Your task to perform on an android device: Go to CNN.com Image 0: 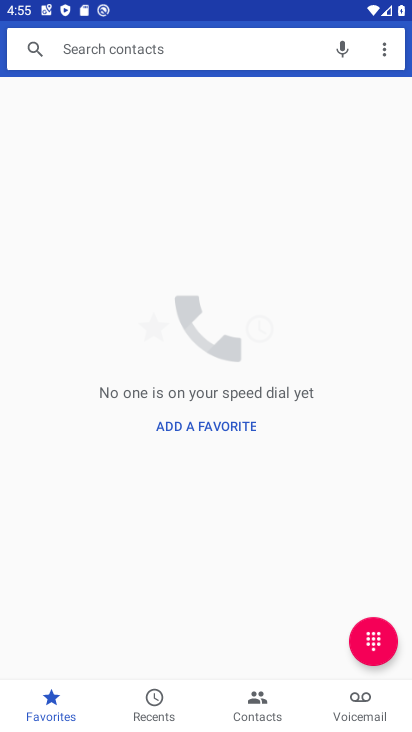
Step 0: press home button
Your task to perform on an android device: Go to CNN.com Image 1: 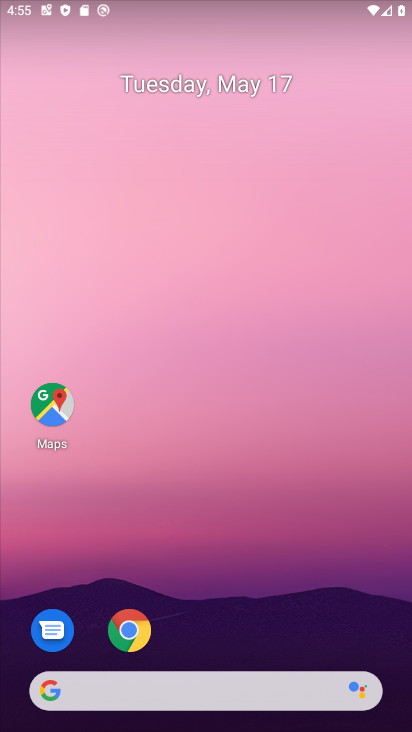
Step 1: click (133, 634)
Your task to perform on an android device: Go to CNN.com Image 2: 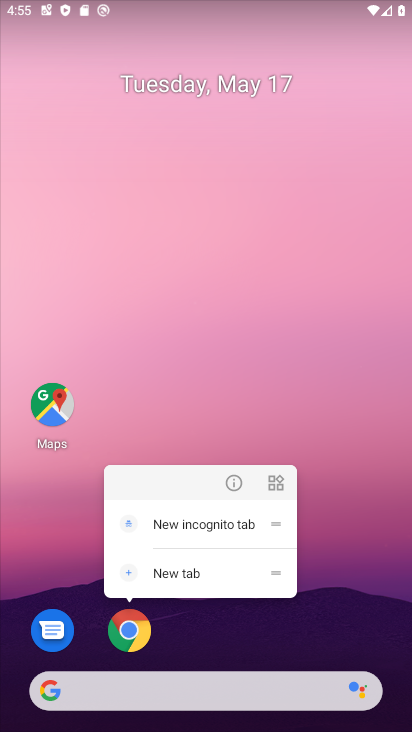
Step 2: click (130, 628)
Your task to perform on an android device: Go to CNN.com Image 3: 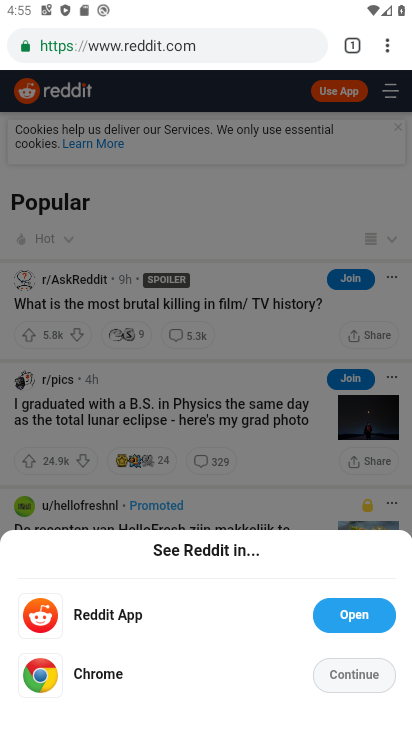
Step 3: click (210, 44)
Your task to perform on an android device: Go to CNN.com Image 4: 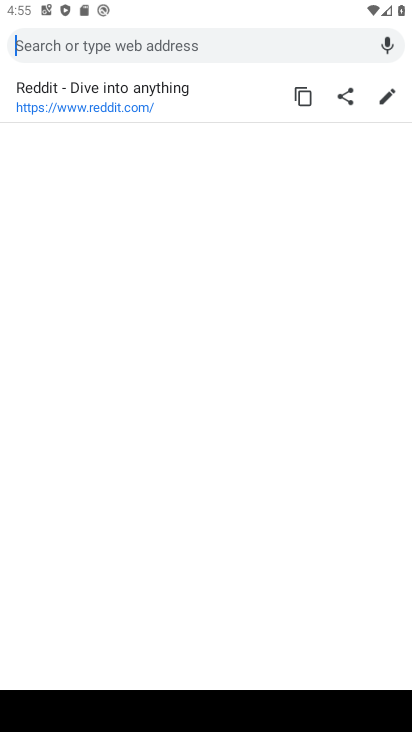
Step 4: type "cnn.com"
Your task to perform on an android device: Go to CNN.com Image 5: 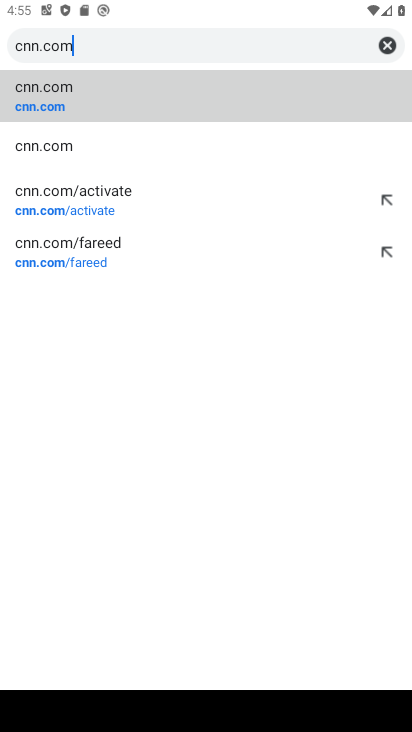
Step 5: click (46, 104)
Your task to perform on an android device: Go to CNN.com Image 6: 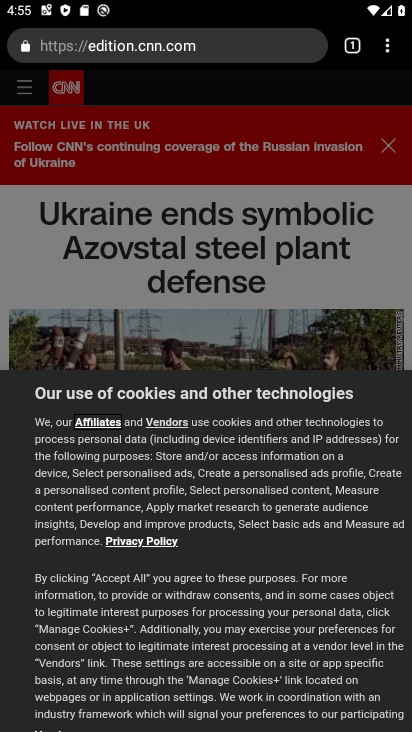
Step 6: task complete